Your task to perform on an android device: open the mobile data screen to see how much data has been used Image 0: 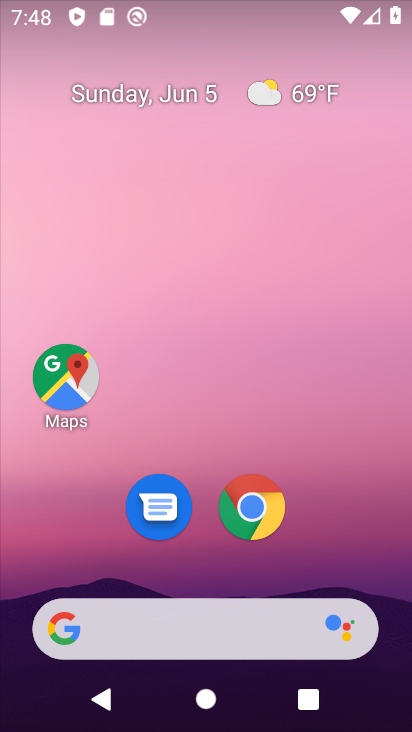
Step 0: drag from (356, 540) to (216, 47)
Your task to perform on an android device: open the mobile data screen to see how much data has been used Image 1: 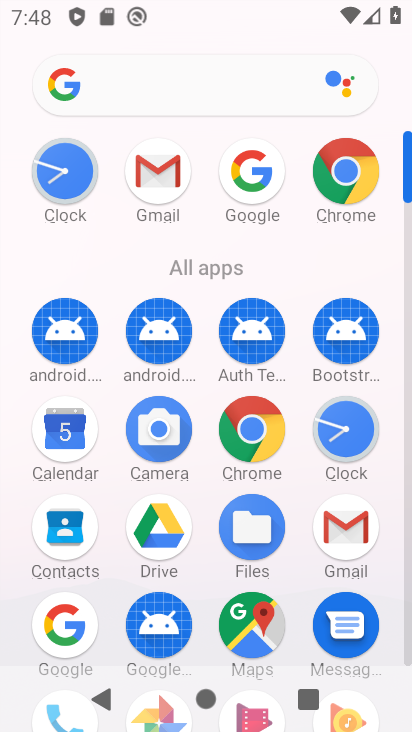
Step 1: drag from (8, 573) to (12, 258)
Your task to perform on an android device: open the mobile data screen to see how much data has been used Image 2: 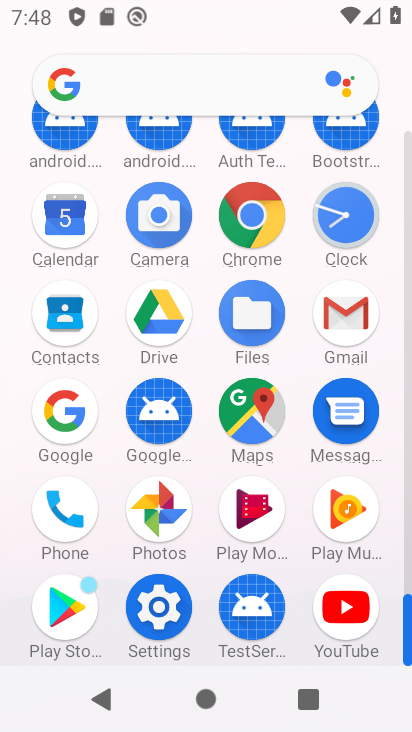
Step 2: click (159, 604)
Your task to perform on an android device: open the mobile data screen to see how much data has been used Image 3: 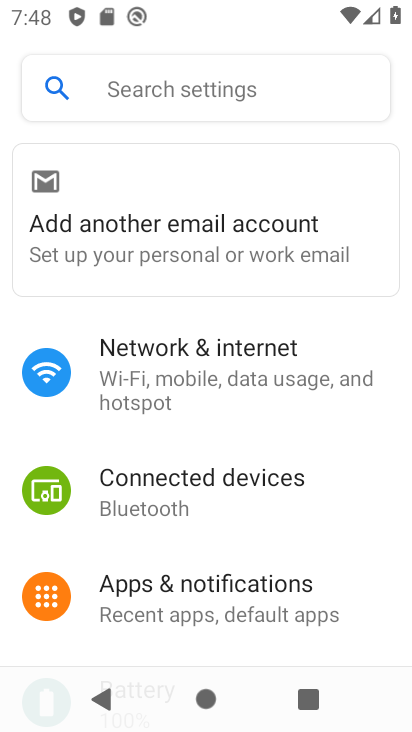
Step 3: click (189, 366)
Your task to perform on an android device: open the mobile data screen to see how much data has been used Image 4: 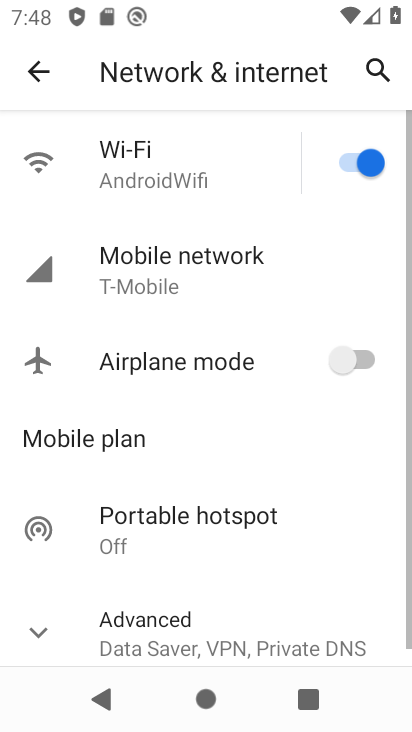
Step 4: click (190, 250)
Your task to perform on an android device: open the mobile data screen to see how much data has been used Image 5: 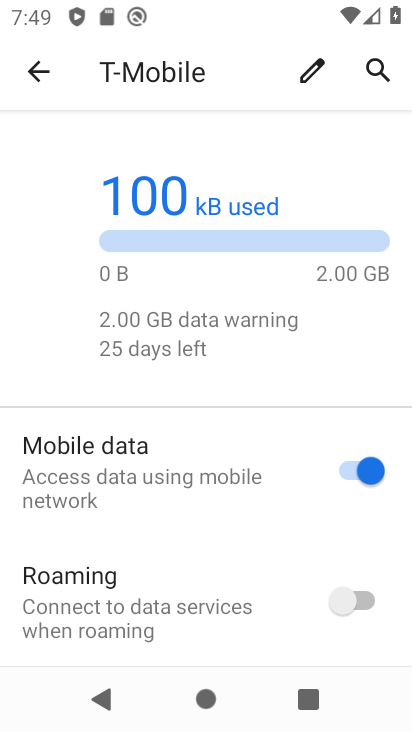
Step 5: task complete